Your task to perform on an android device: Show me productivity apps on the Play Store Image 0: 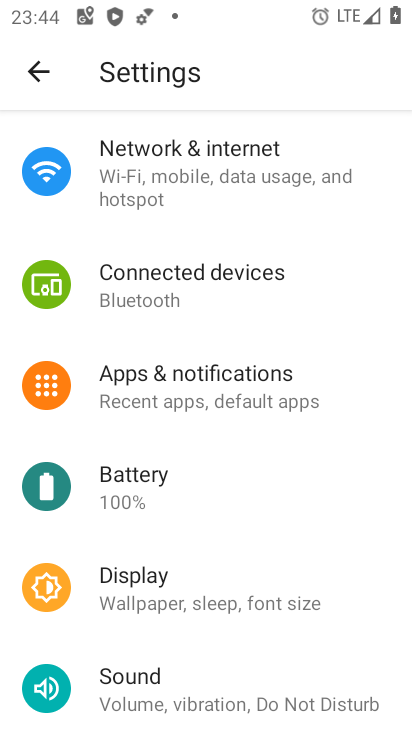
Step 0: press home button
Your task to perform on an android device: Show me productivity apps on the Play Store Image 1: 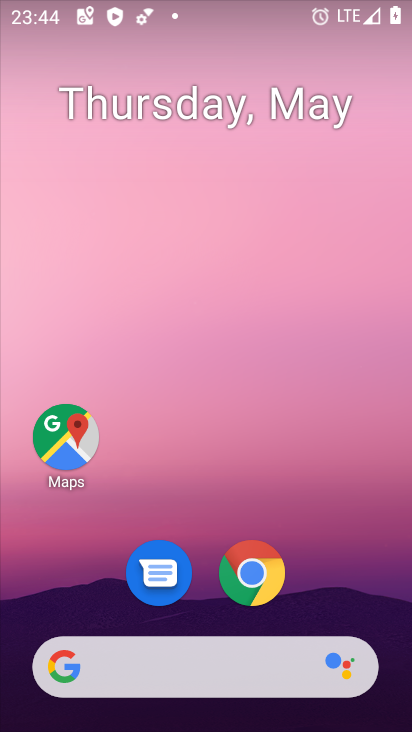
Step 1: drag from (194, 619) to (196, 153)
Your task to perform on an android device: Show me productivity apps on the Play Store Image 2: 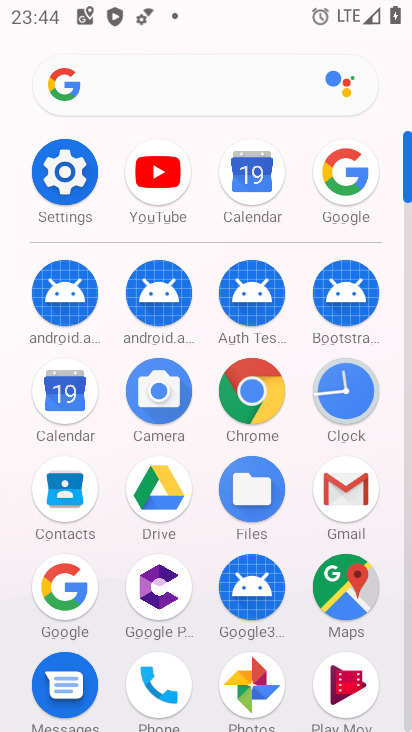
Step 2: drag from (108, 650) to (135, 287)
Your task to perform on an android device: Show me productivity apps on the Play Store Image 3: 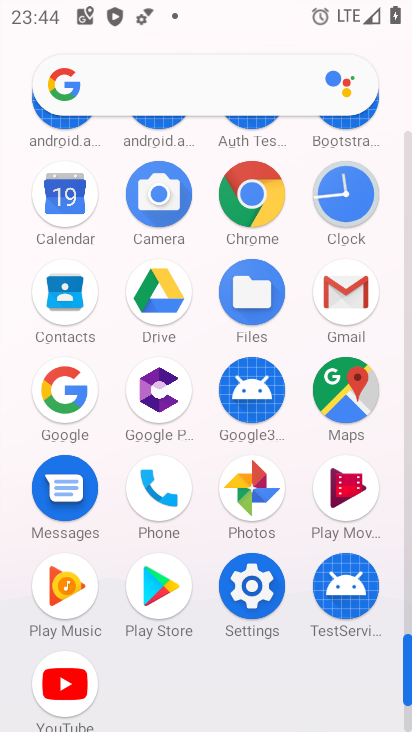
Step 3: click (166, 592)
Your task to perform on an android device: Show me productivity apps on the Play Store Image 4: 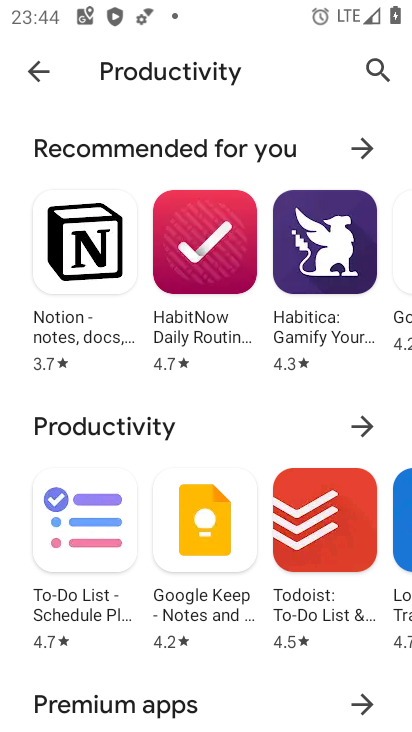
Step 4: task complete